Your task to perform on an android device: delete location history Image 0: 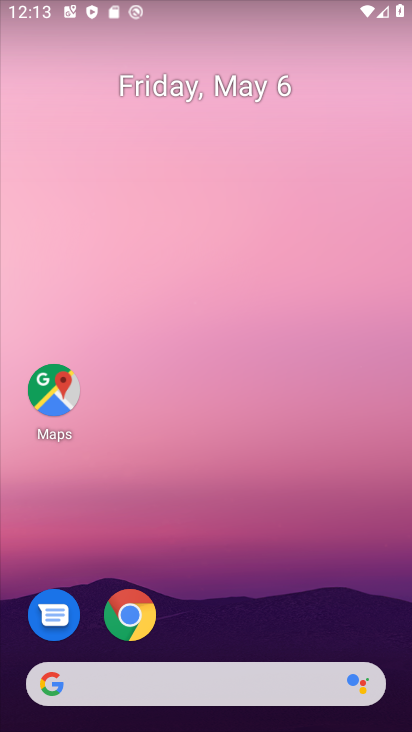
Step 0: click (215, 212)
Your task to perform on an android device: delete location history Image 1: 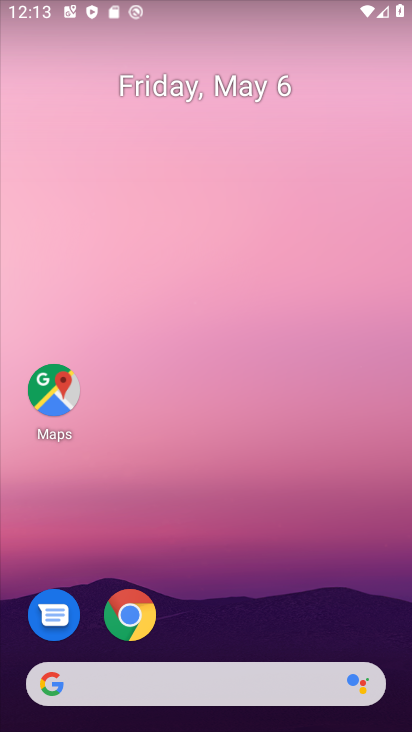
Step 1: drag from (234, 303) to (205, 123)
Your task to perform on an android device: delete location history Image 2: 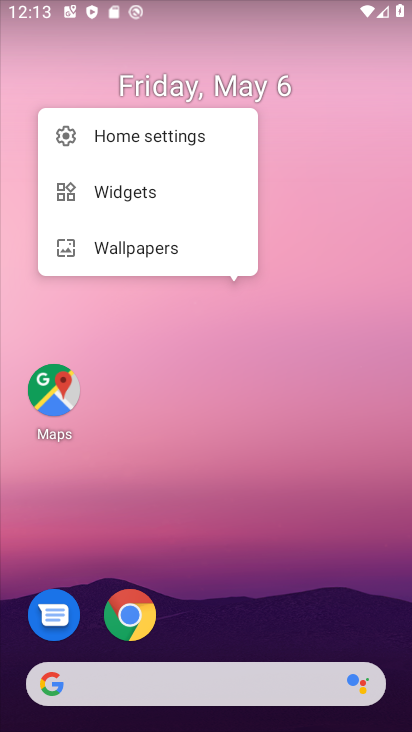
Step 2: drag from (211, 608) to (245, 109)
Your task to perform on an android device: delete location history Image 3: 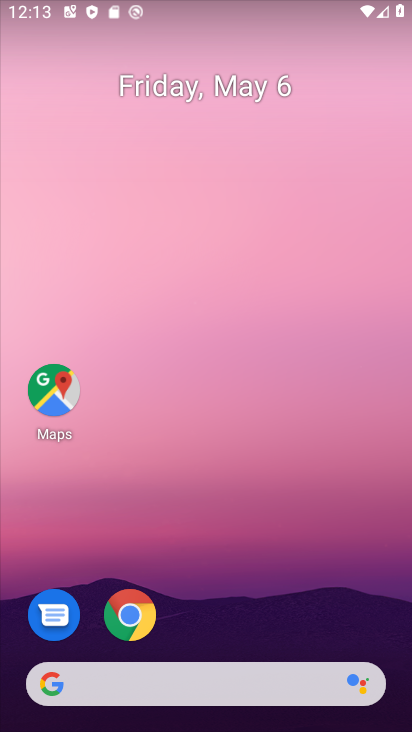
Step 3: drag from (229, 601) to (235, 165)
Your task to perform on an android device: delete location history Image 4: 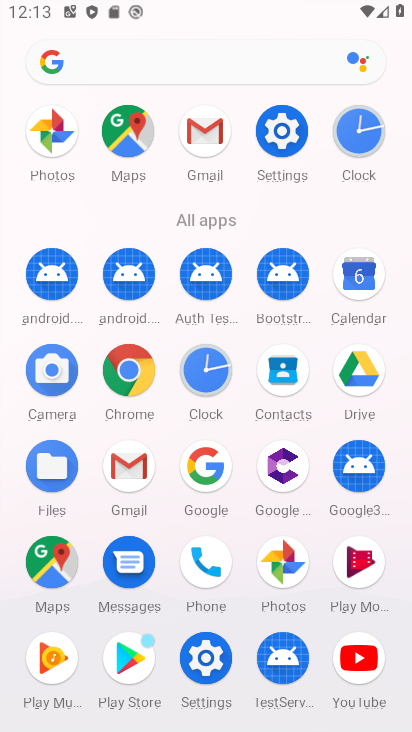
Step 4: click (112, 156)
Your task to perform on an android device: delete location history Image 5: 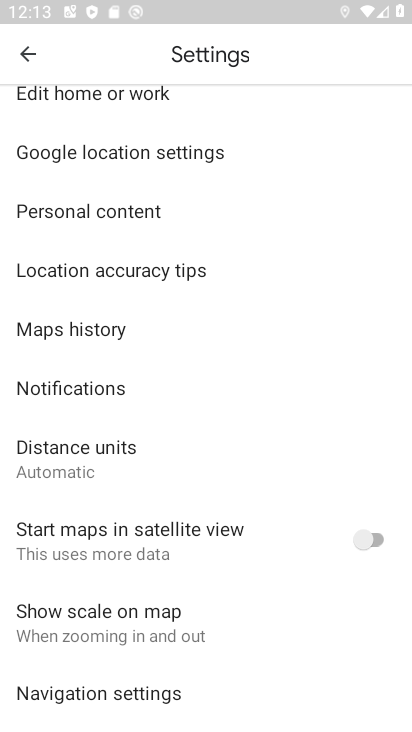
Step 5: drag from (205, 429) to (213, 139)
Your task to perform on an android device: delete location history Image 6: 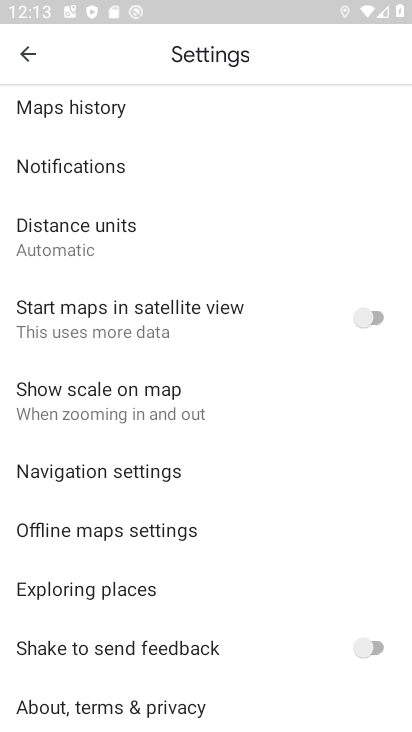
Step 6: drag from (177, 377) to (214, 580)
Your task to perform on an android device: delete location history Image 7: 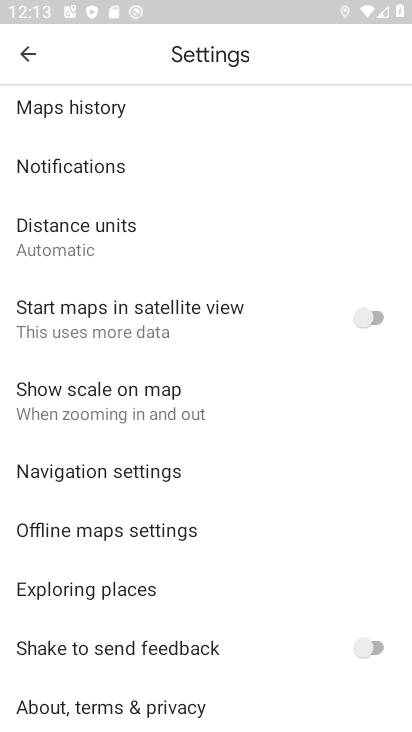
Step 7: press back button
Your task to perform on an android device: delete location history Image 8: 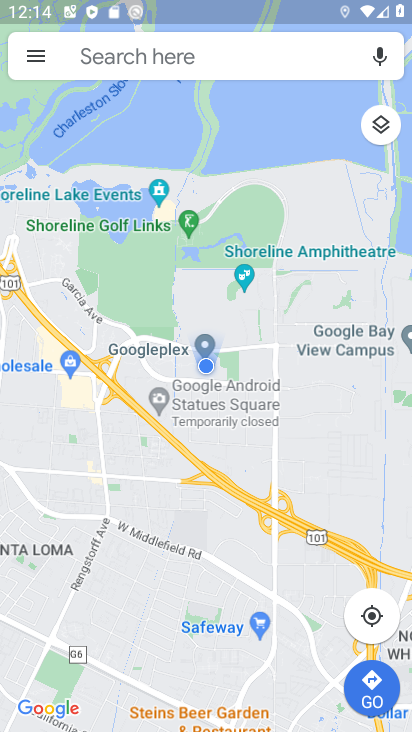
Step 8: click (41, 60)
Your task to perform on an android device: delete location history Image 9: 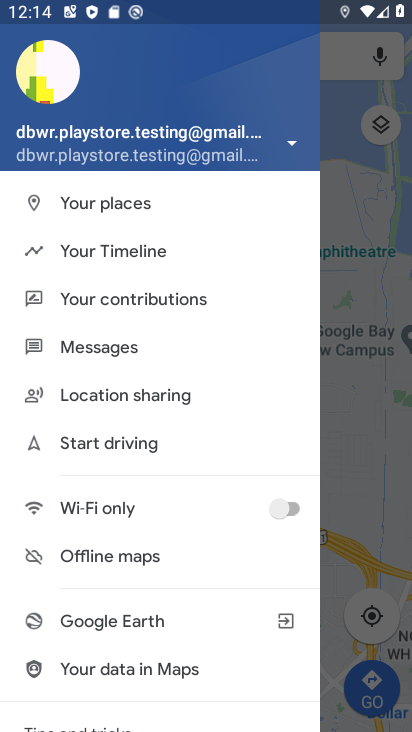
Step 9: click (133, 252)
Your task to perform on an android device: delete location history Image 10: 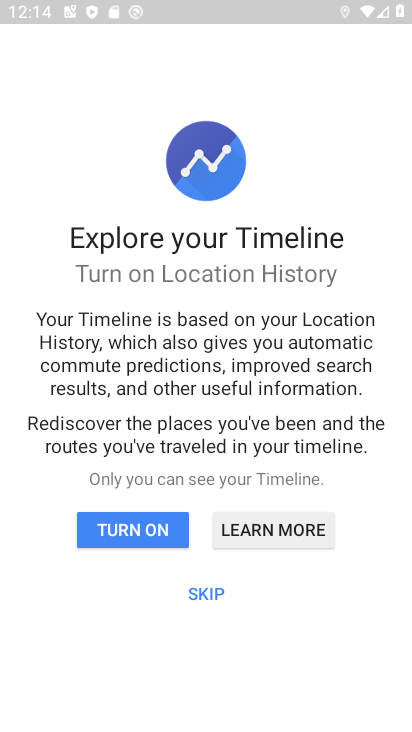
Step 10: click (168, 536)
Your task to perform on an android device: delete location history Image 11: 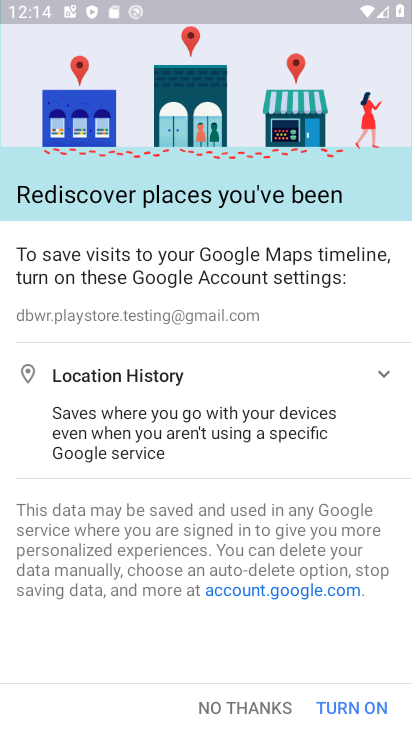
Step 11: click (254, 713)
Your task to perform on an android device: delete location history Image 12: 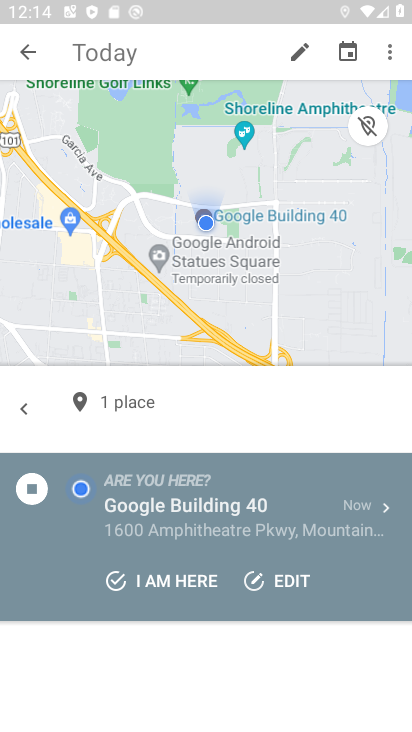
Step 12: click (383, 52)
Your task to perform on an android device: delete location history Image 13: 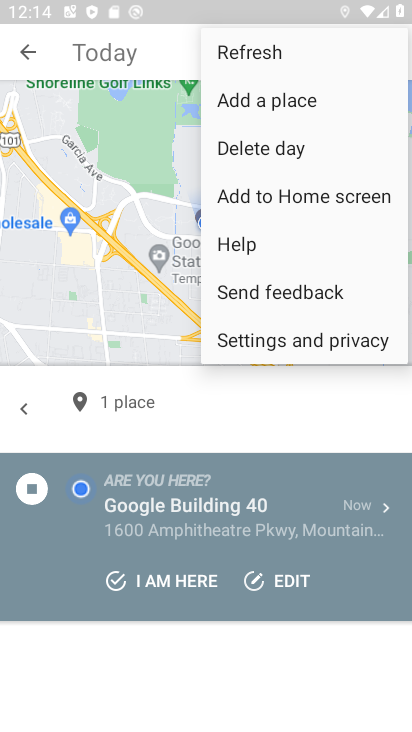
Step 13: click (307, 347)
Your task to perform on an android device: delete location history Image 14: 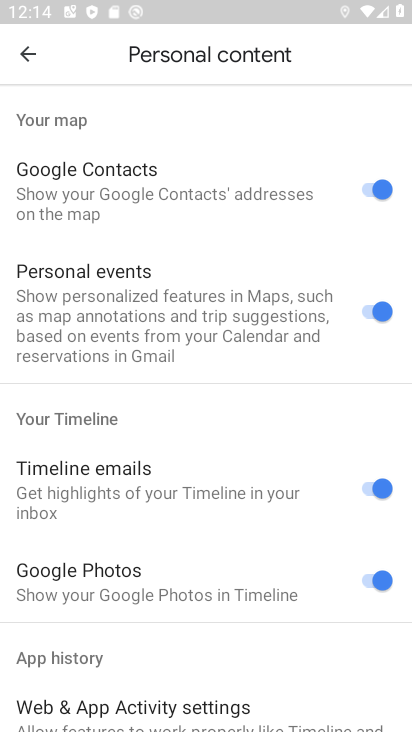
Step 14: click (203, 220)
Your task to perform on an android device: delete location history Image 15: 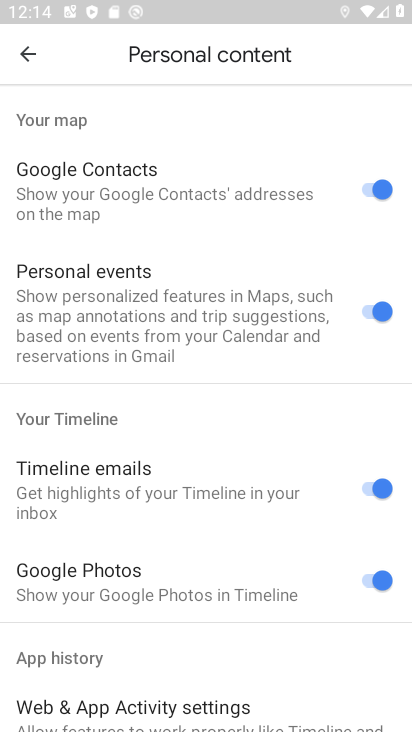
Step 15: click (184, 291)
Your task to perform on an android device: delete location history Image 16: 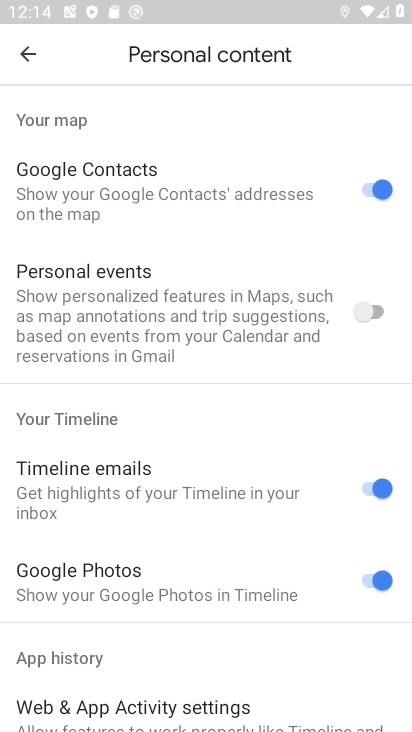
Step 16: click (190, 174)
Your task to perform on an android device: delete location history Image 17: 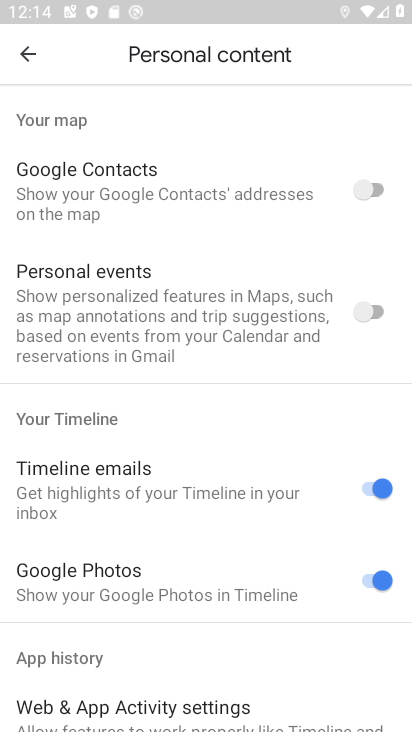
Step 17: drag from (202, 317) to (229, 65)
Your task to perform on an android device: delete location history Image 18: 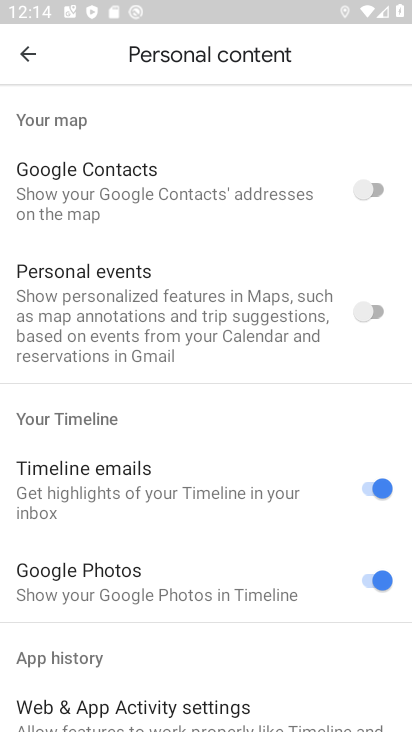
Step 18: drag from (216, 563) to (259, 184)
Your task to perform on an android device: delete location history Image 19: 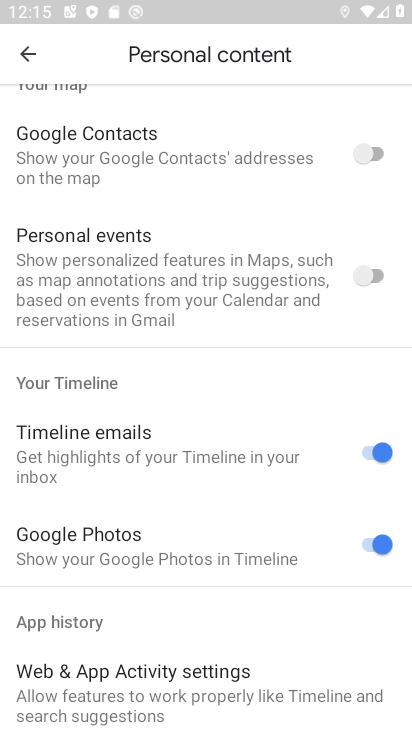
Step 19: drag from (285, 412) to (272, 346)
Your task to perform on an android device: delete location history Image 20: 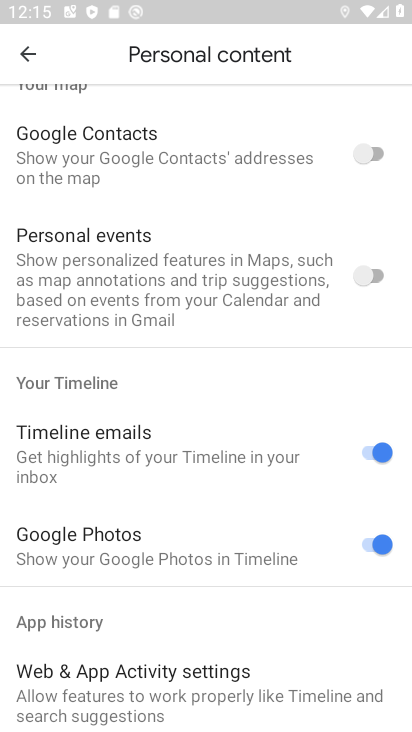
Step 20: drag from (152, 598) to (170, 74)
Your task to perform on an android device: delete location history Image 21: 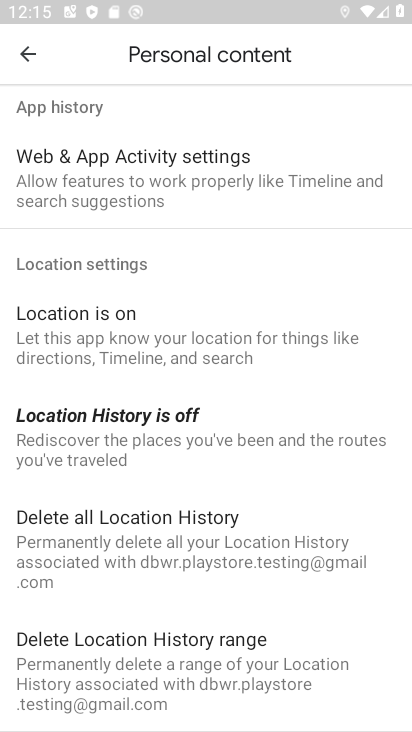
Step 21: click (106, 565)
Your task to perform on an android device: delete location history Image 22: 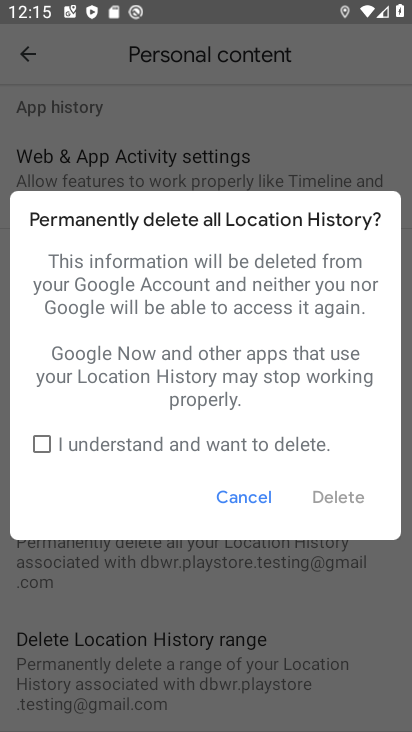
Step 22: click (44, 450)
Your task to perform on an android device: delete location history Image 23: 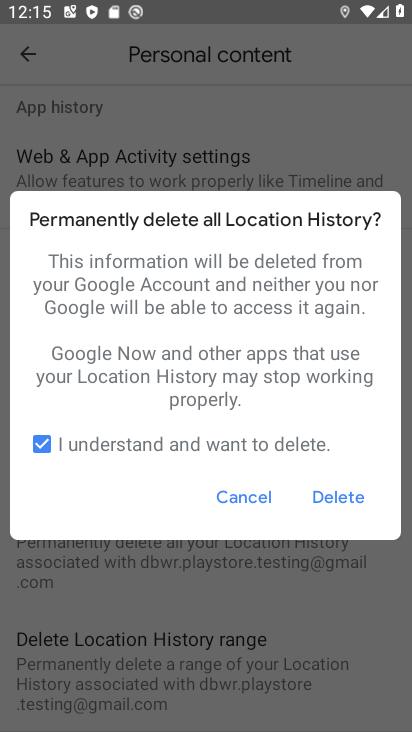
Step 23: click (360, 493)
Your task to perform on an android device: delete location history Image 24: 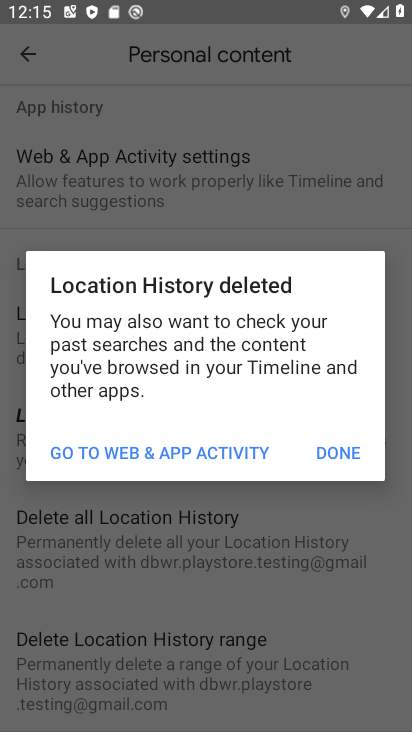
Step 24: click (327, 458)
Your task to perform on an android device: delete location history Image 25: 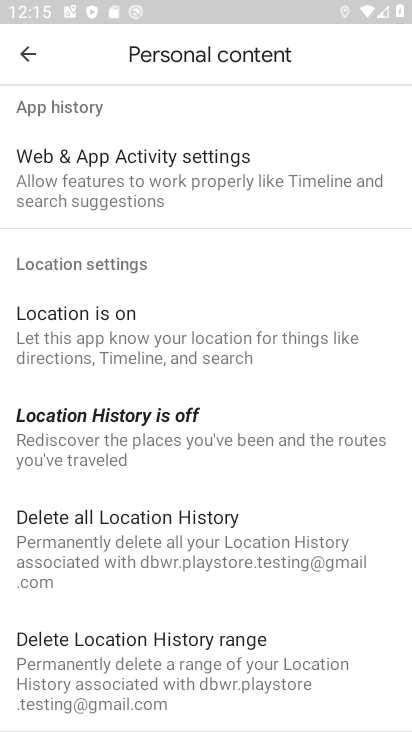
Step 25: task complete